Your task to perform on an android device: What's the weather going to be this weekend? Image 0: 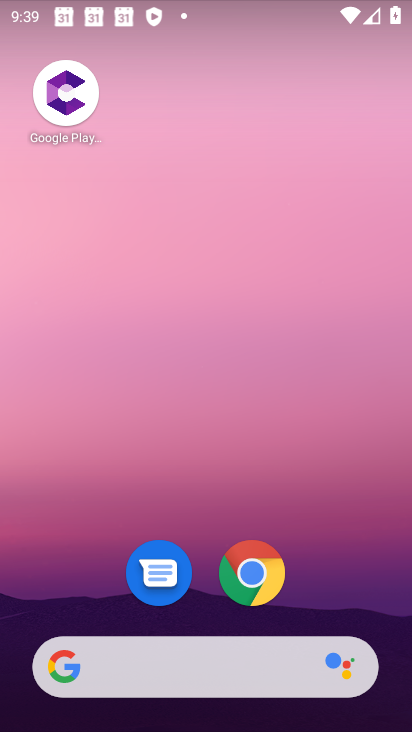
Step 0: drag from (307, 610) to (329, 138)
Your task to perform on an android device: What's the weather going to be this weekend? Image 1: 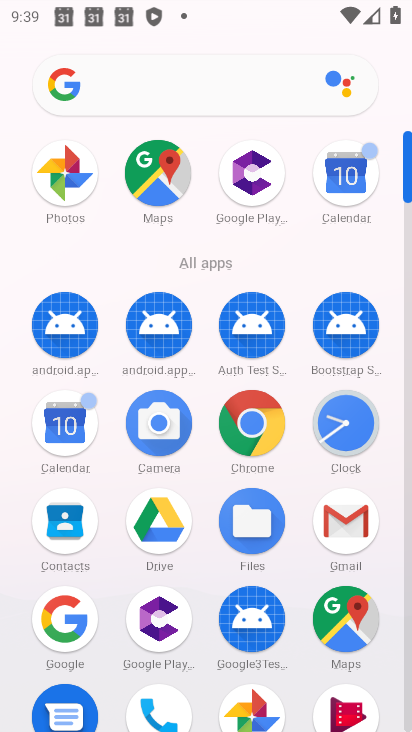
Step 1: click (250, 418)
Your task to perform on an android device: What's the weather going to be this weekend? Image 2: 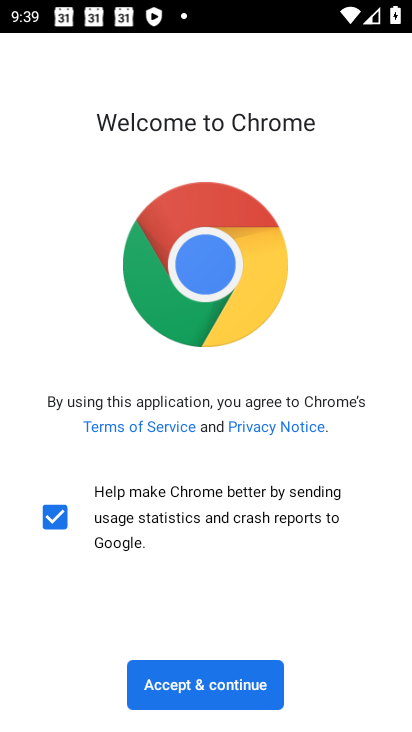
Step 2: click (175, 684)
Your task to perform on an android device: What's the weather going to be this weekend? Image 3: 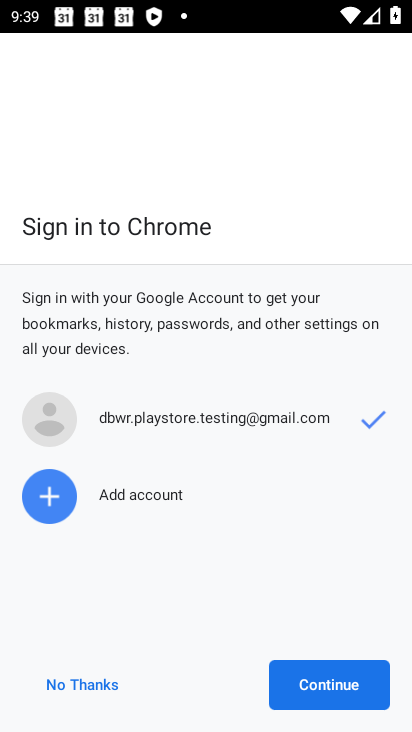
Step 3: click (332, 674)
Your task to perform on an android device: What's the weather going to be this weekend? Image 4: 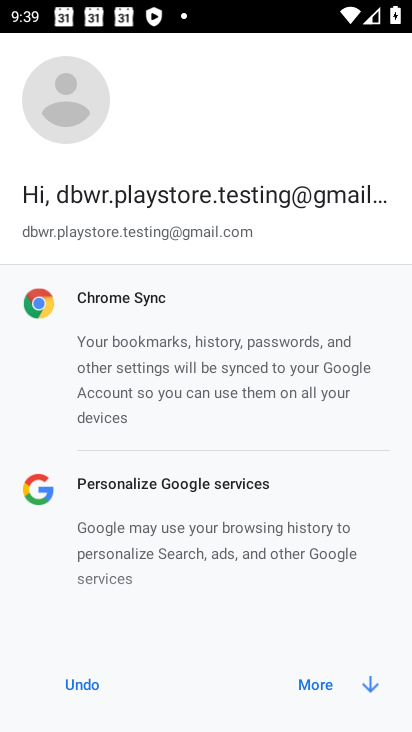
Step 4: click (318, 687)
Your task to perform on an android device: What's the weather going to be this weekend? Image 5: 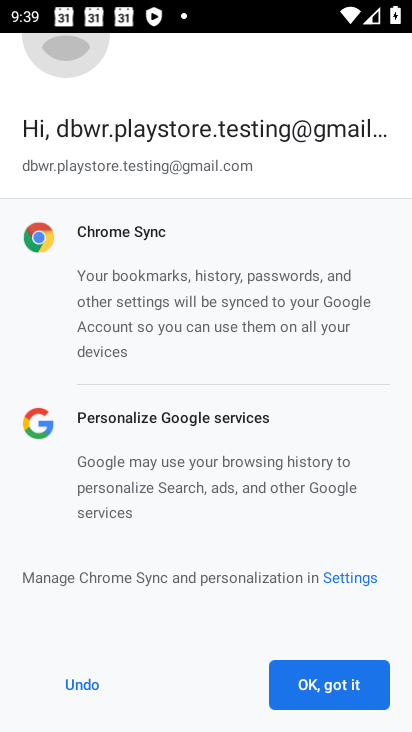
Step 5: click (318, 687)
Your task to perform on an android device: What's the weather going to be this weekend? Image 6: 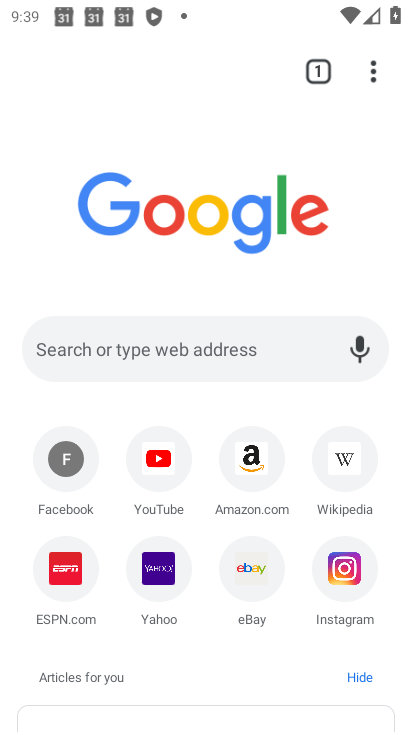
Step 6: click (113, 335)
Your task to perform on an android device: What's the weather going to be this weekend? Image 7: 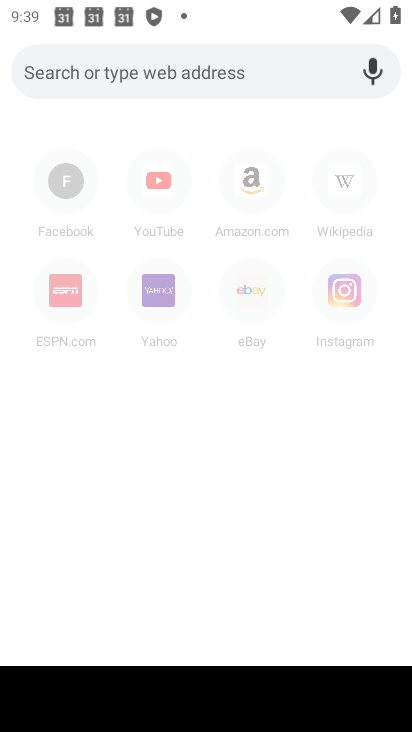
Step 7: type "What's the weather going to be this weekend?"
Your task to perform on an android device: What's the weather going to be this weekend? Image 8: 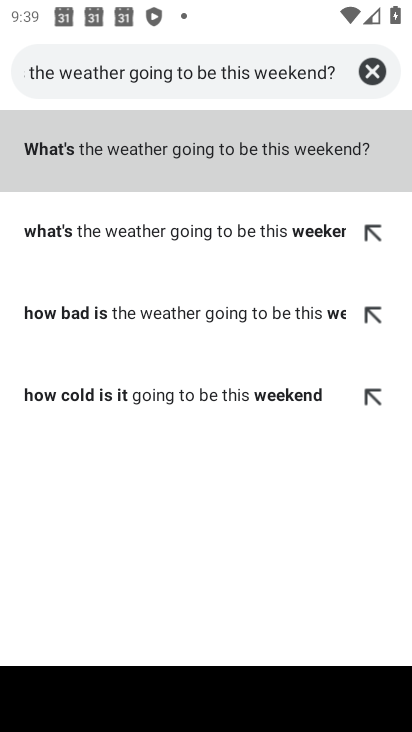
Step 8: click (244, 155)
Your task to perform on an android device: What's the weather going to be this weekend? Image 9: 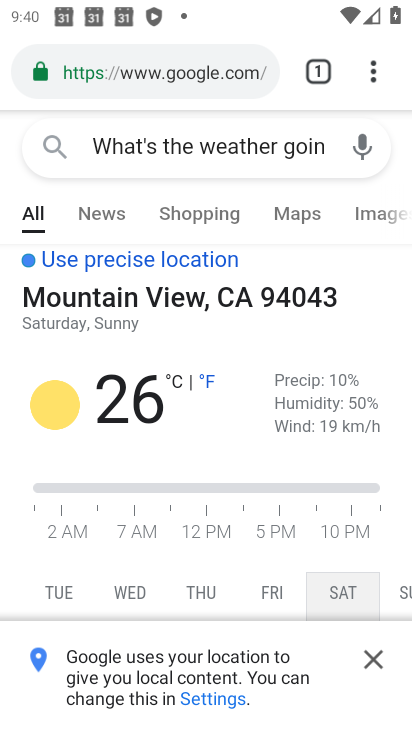
Step 9: task complete